Your task to perform on an android device: change notifications settings Image 0: 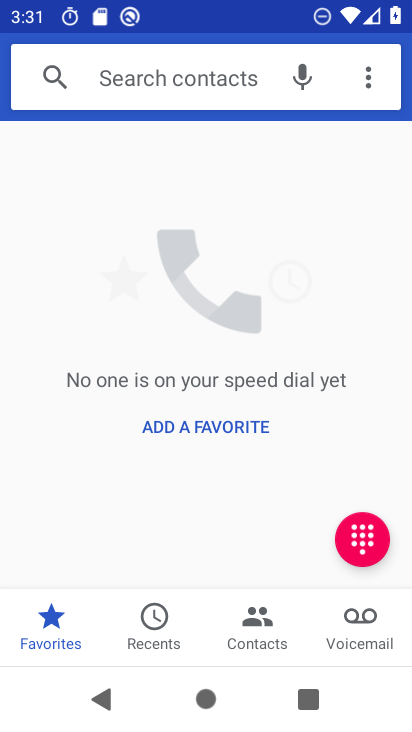
Step 0: press home button
Your task to perform on an android device: change notifications settings Image 1: 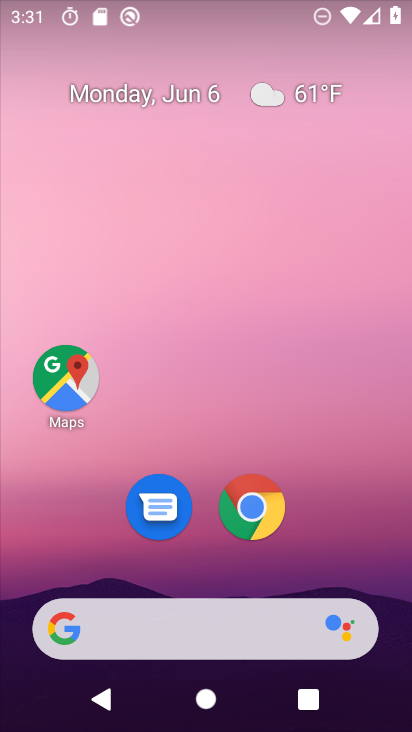
Step 1: drag from (203, 571) to (234, 133)
Your task to perform on an android device: change notifications settings Image 2: 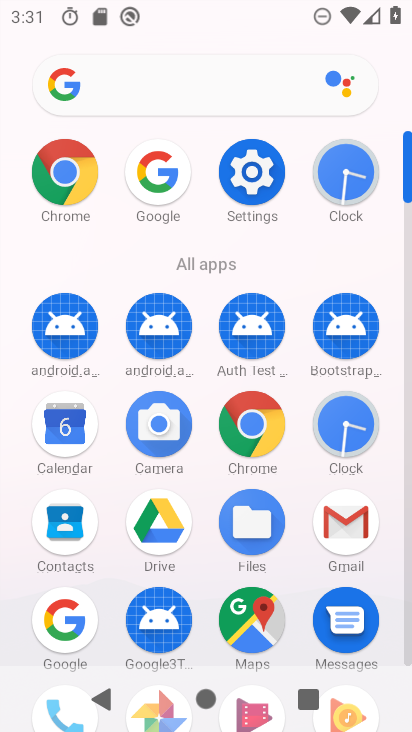
Step 2: click (234, 146)
Your task to perform on an android device: change notifications settings Image 3: 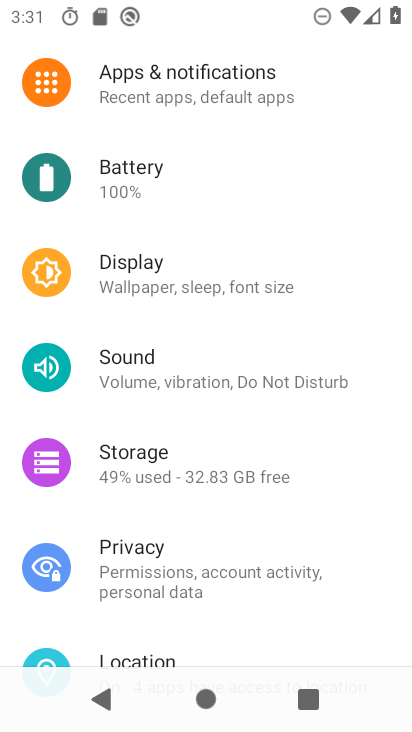
Step 3: click (218, 106)
Your task to perform on an android device: change notifications settings Image 4: 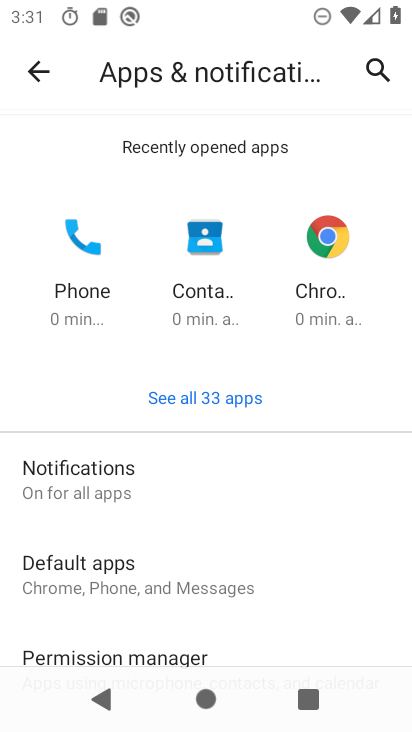
Step 4: click (161, 480)
Your task to perform on an android device: change notifications settings Image 5: 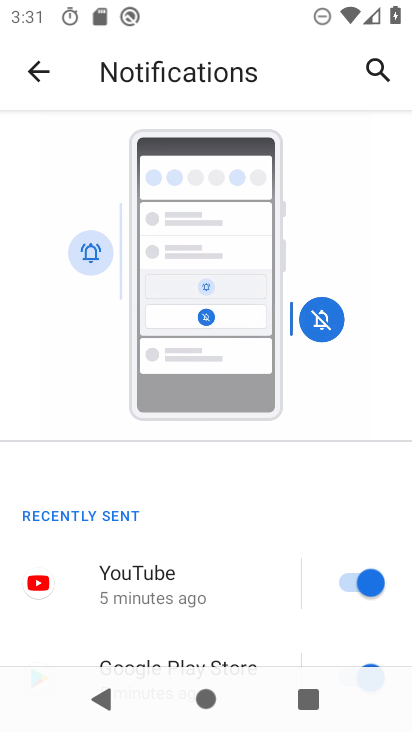
Step 5: task complete